Your task to perform on an android device: find snoozed emails in the gmail app Image 0: 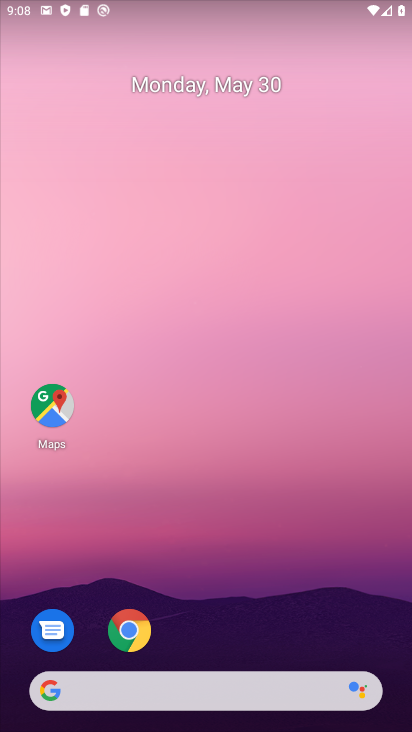
Step 0: task complete